Your task to perform on an android device: turn on sleep mode Image 0: 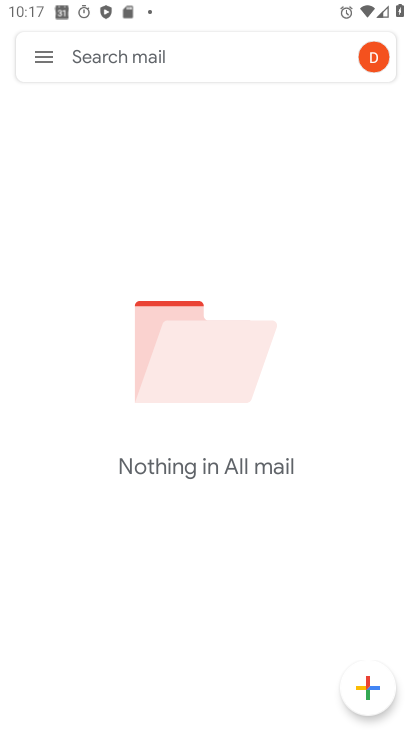
Step 0: press home button
Your task to perform on an android device: turn on sleep mode Image 1: 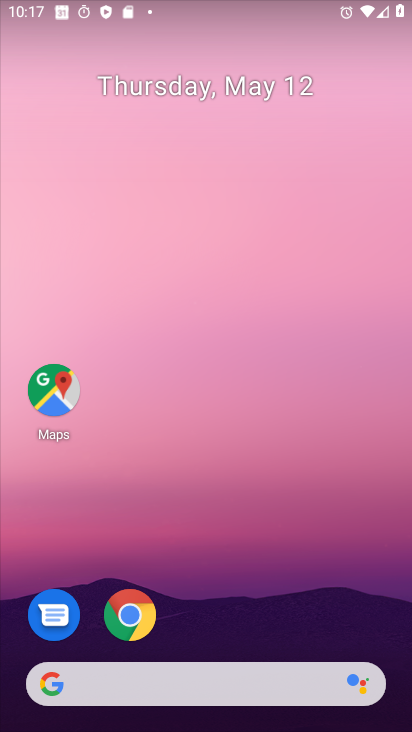
Step 1: drag from (269, 600) to (250, 138)
Your task to perform on an android device: turn on sleep mode Image 2: 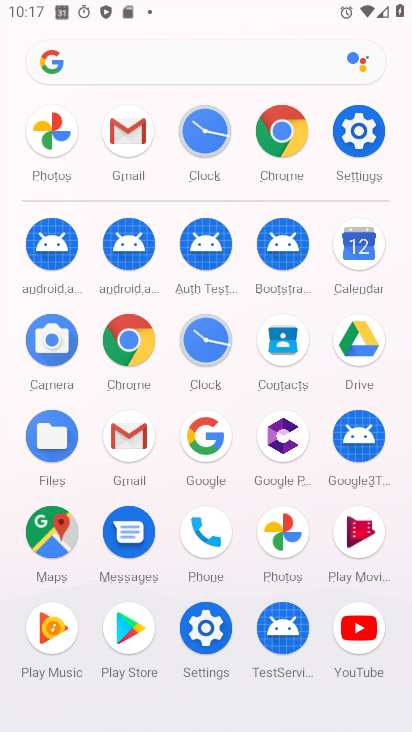
Step 2: click (363, 127)
Your task to perform on an android device: turn on sleep mode Image 3: 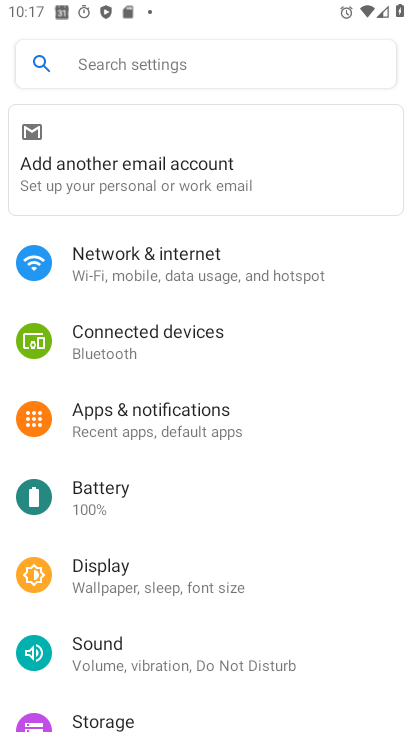
Step 3: click (141, 574)
Your task to perform on an android device: turn on sleep mode Image 4: 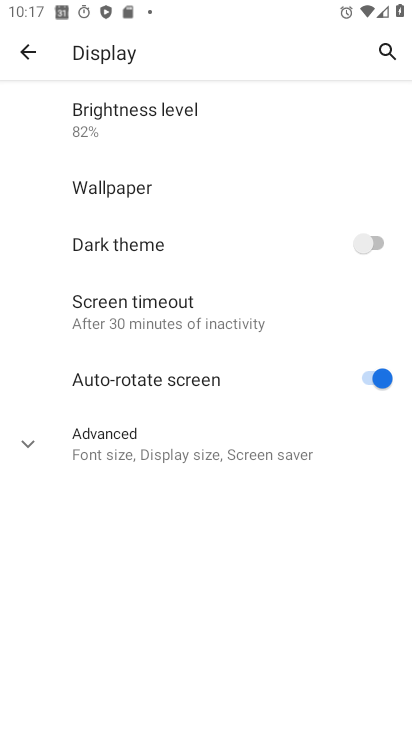
Step 4: click (207, 323)
Your task to perform on an android device: turn on sleep mode Image 5: 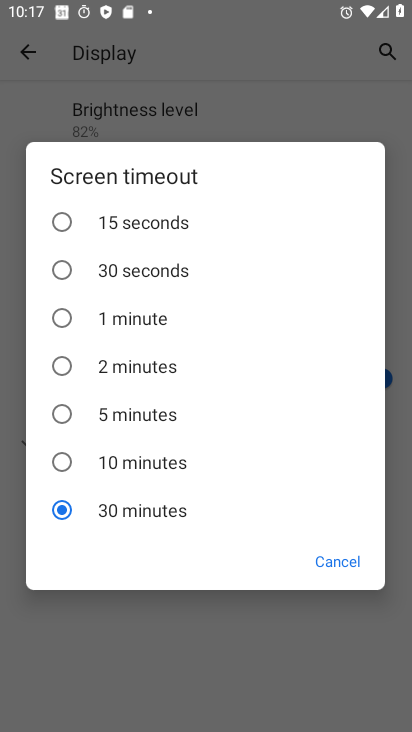
Step 5: task complete